Your task to perform on an android device: Open wifi settings Image 0: 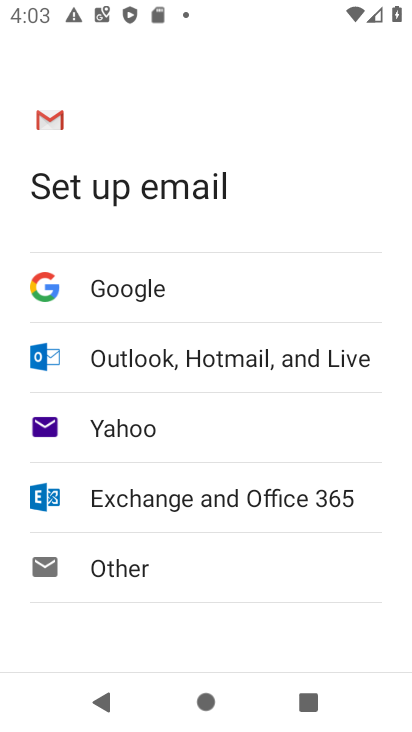
Step 0: press home button
Your task to perform on an android device: Open wifi settings Image 1: 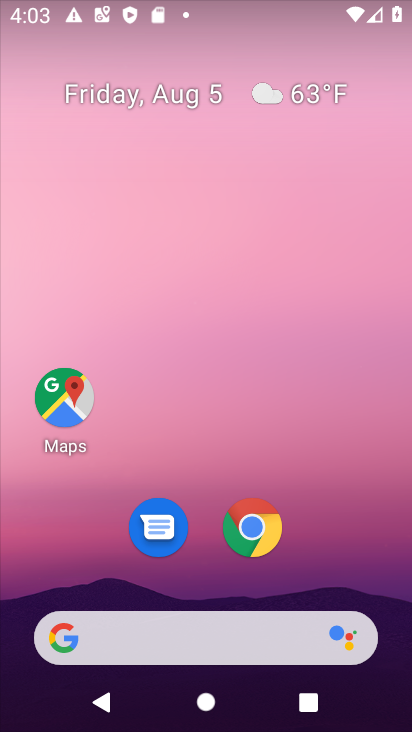
Step 1: drag from (217, 569) to (211, 79)
Your task to perform on an android device: Open wifi settings Image 2: 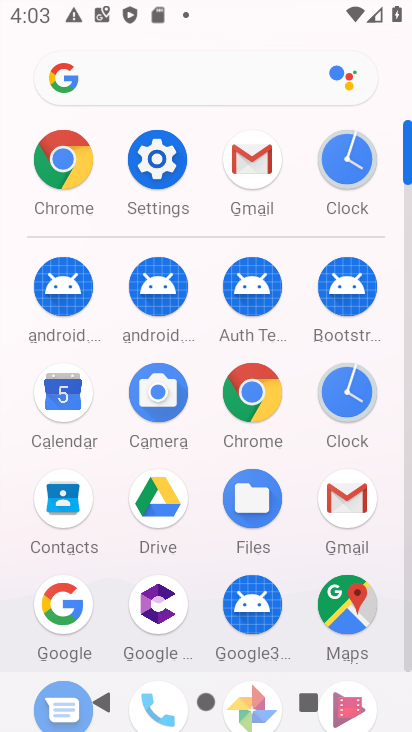
Step 2: click (163, 164)
Your task to perform on an android device: Open wifi settings Image 3: 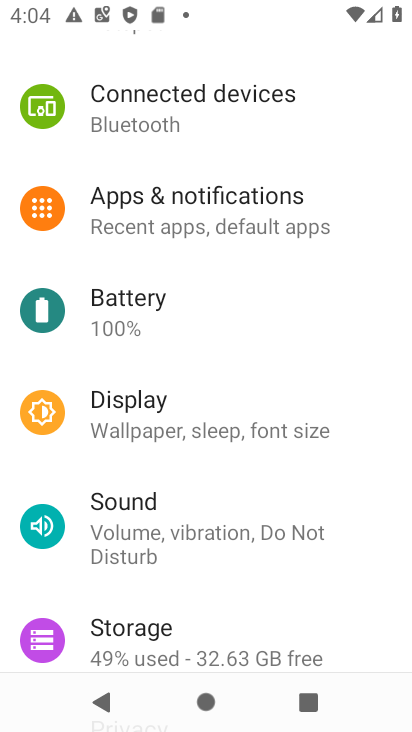
Step 3: drag from (185, 134) to (173, 496)
Your task to perform on an android device: Open wifi settings Image 4: 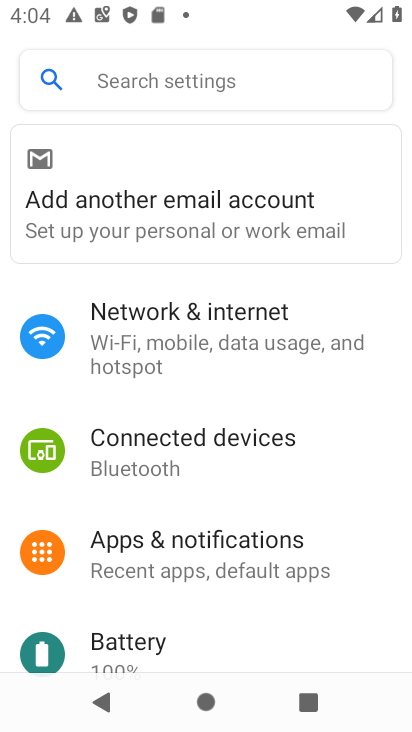
Step 4: click (165, 328)
Your task to perform on an android device: Open wifi settings Image 5: 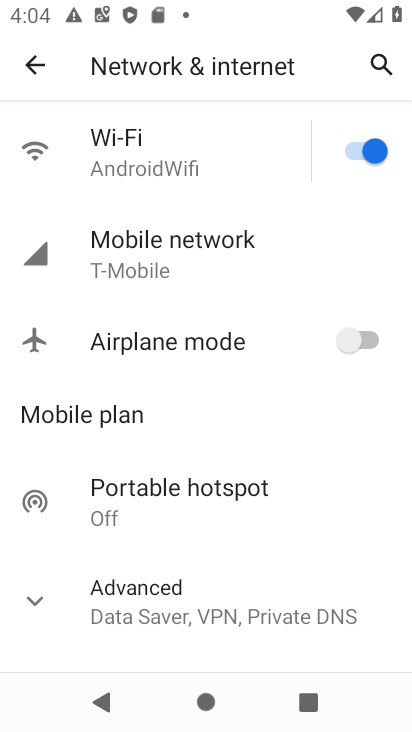
Step 5: click (129, 159)
Your task to perform on an android device: Open wifi settings Image 6: 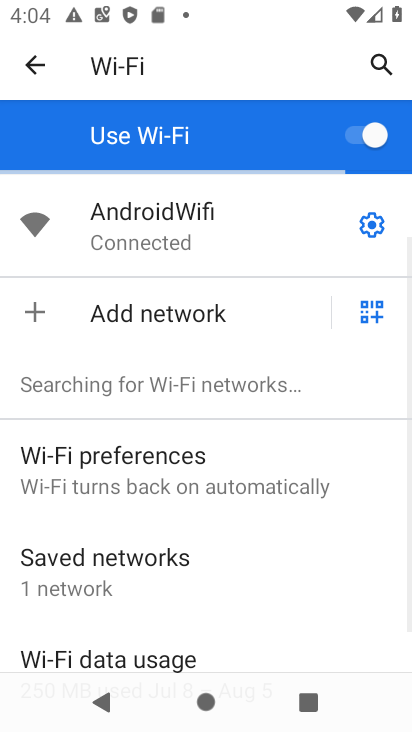
Step 6: task complete